Your task to perform on an android device: Find coffee shops on Maps Image 0: 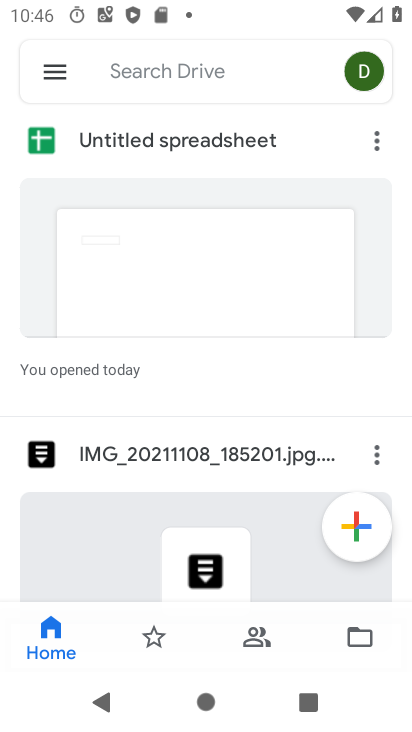
Step 0: press home button
Your task to perform on an android device: Find coffee shops on Maps Image 1: 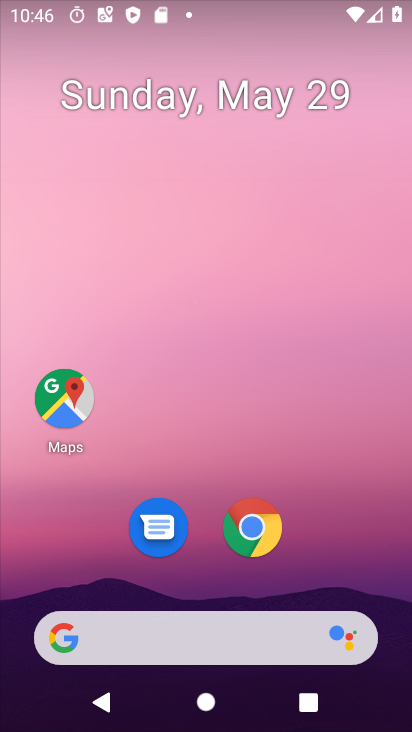
Step 1: drag from (259, 424) to (231, 4)
Your task to perform on an android device: Find coffee shops on Maps Image 2: 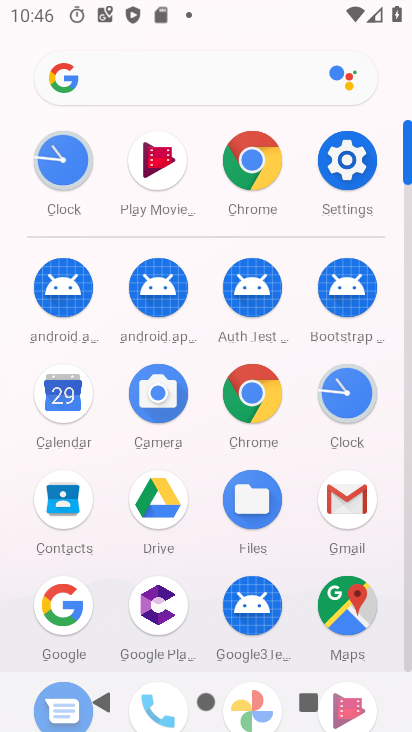
Step 2: click (339, 608)
Your task to perform on an android device: Find coffee shops on Maps Image 3: 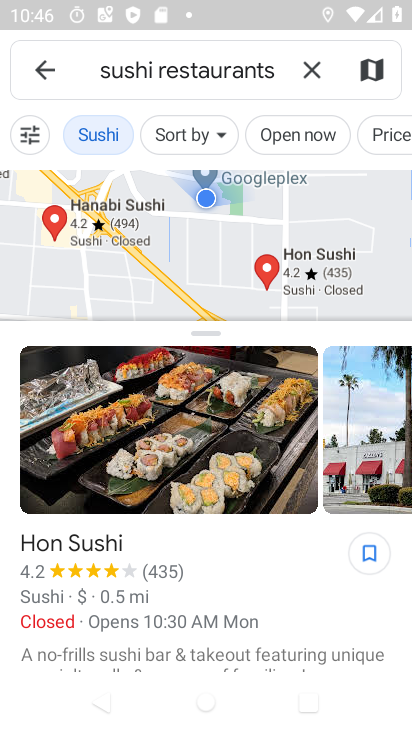
Step 3: click (156, 74)
Your task to perform on an android device: Find coffee shops on Maps Image 4: 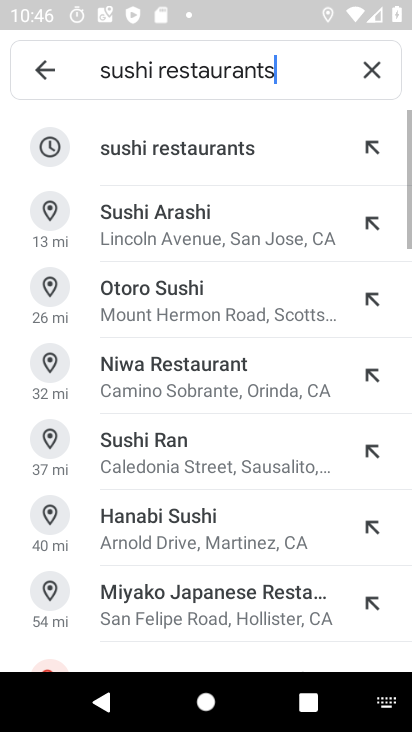
Step 4: click (362, 66)
Your task to perform on an android device: Find coffee shops on Maps Image 5: 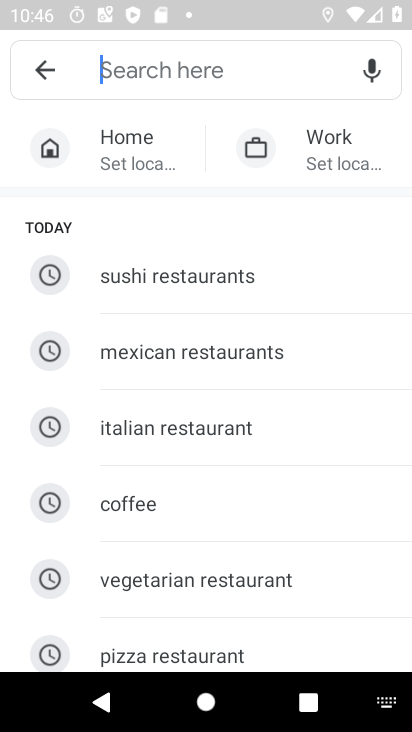
Step 5: type "coffee shops"
Your task to perform on an android device: Find coffee shops on Maps Image 6: 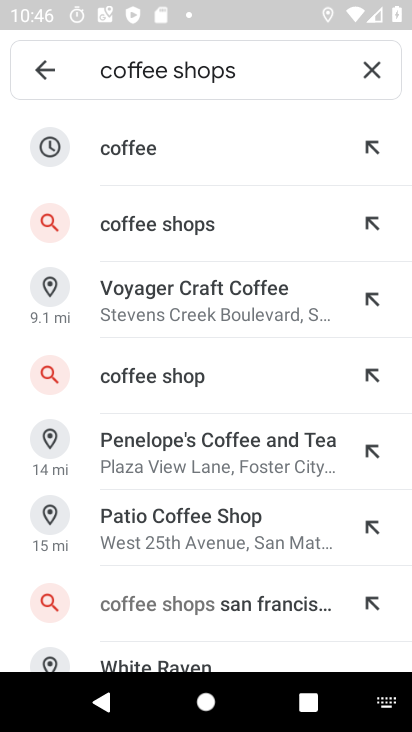
Step 6: click (227, 226)
Your task to perform on an android device: Find coffee shops on Maps Image 7: 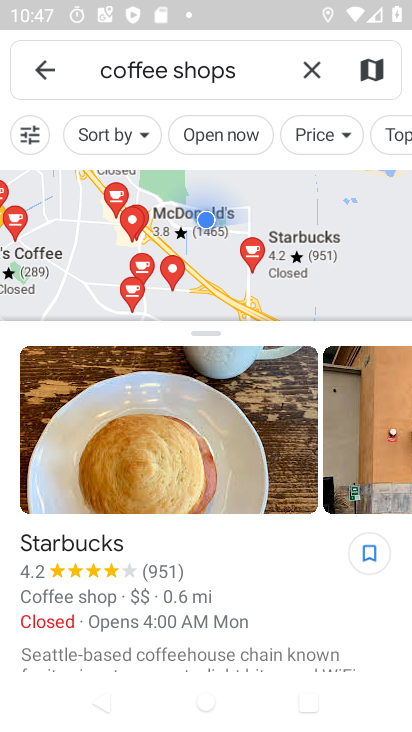
Step 7: task complete